Your task to perform on an android device: delete a single message in the gmail app Image 0: 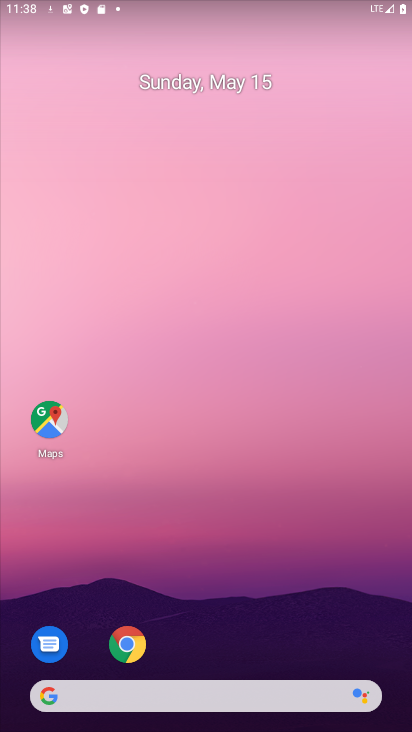
Step 0: drag from (224, 705) to (190, 239)
Your task to perform on an android device: delete a single message in the gmail app Image 1: 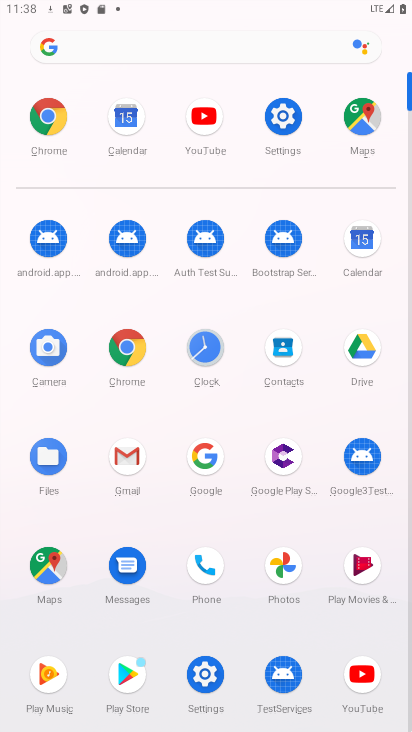
Step 1: click (147, 448)
Your task to perform on an android device: delete a single message in the gmail app Image 2: 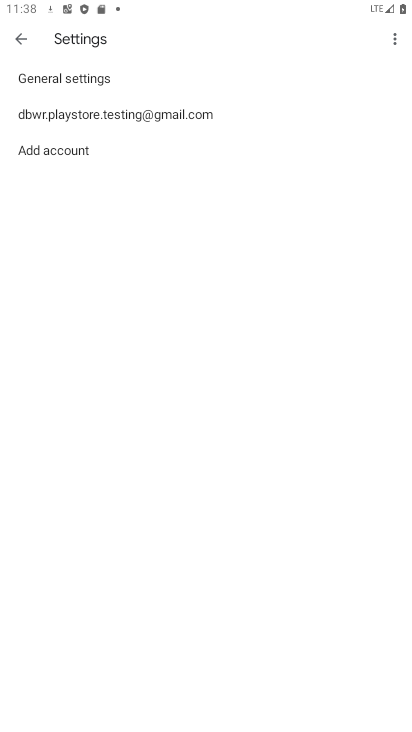
Step 2: click (132, 113)
Your task to perform on an android device: delete a single message in the gmail app Image 3: 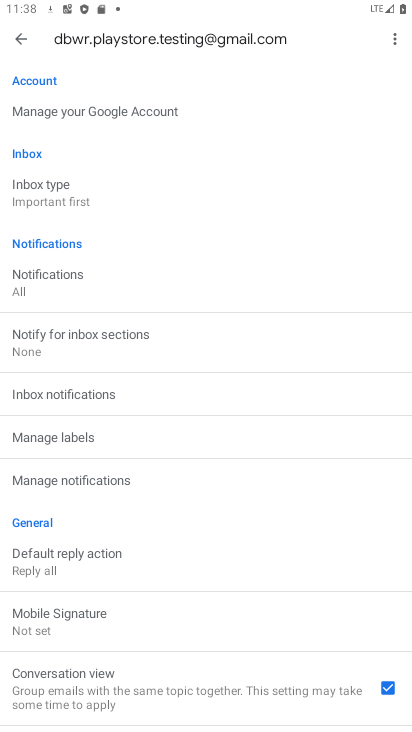
Step 3: click (14, 39)
Your task to perform on an android device: delete a single message in the gmail app Image 4: 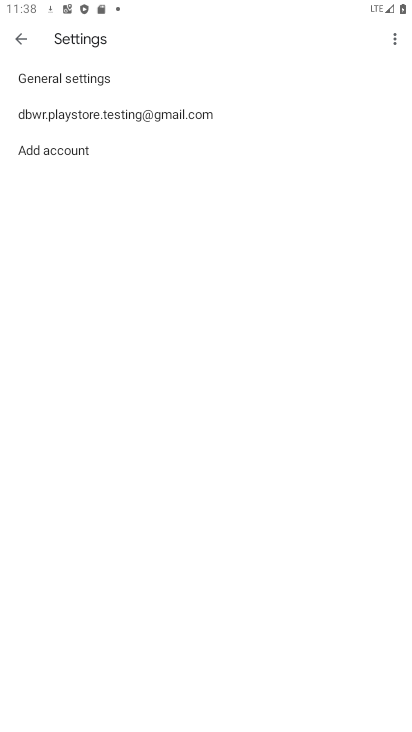
Step 4: click (14, 39)
Your task to perform on an android device: delete a single message in the gmail app Image 5: 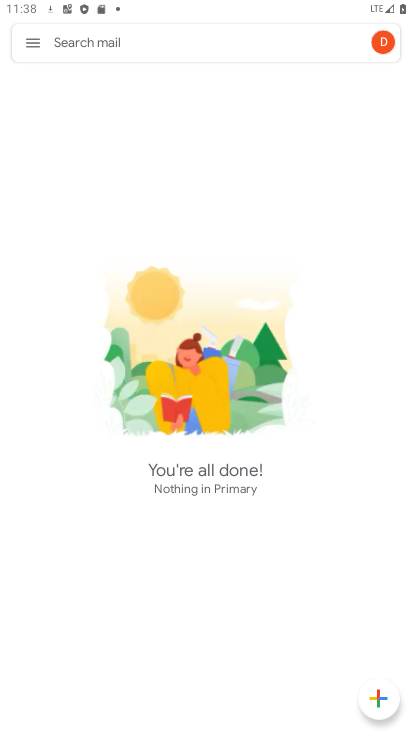
Step 5: task complete